Your task to perform on an android device: Look up the best rated book on Goodreads Image 0: 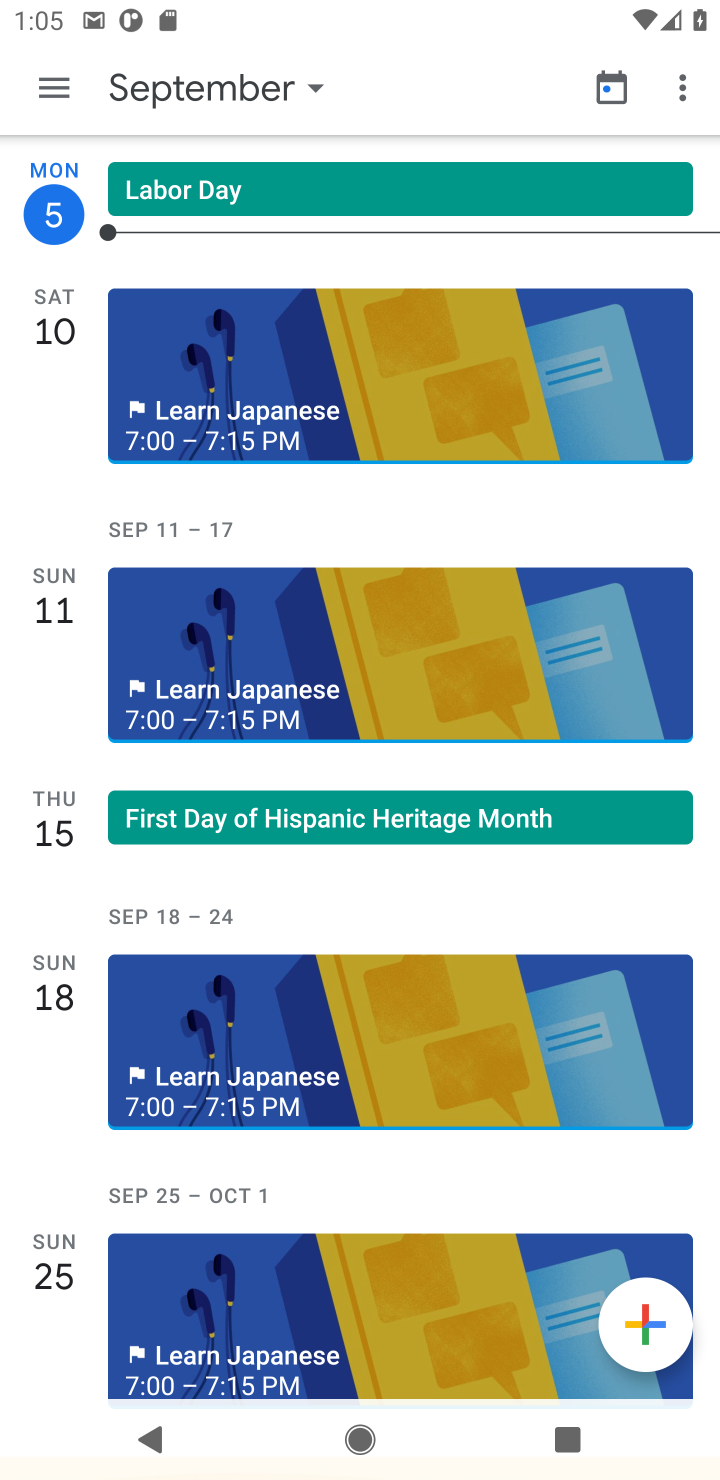
Step 0: click (159, 885)
Your task to perform on an android device: Look up the best rated book on Goodreads Image 1: 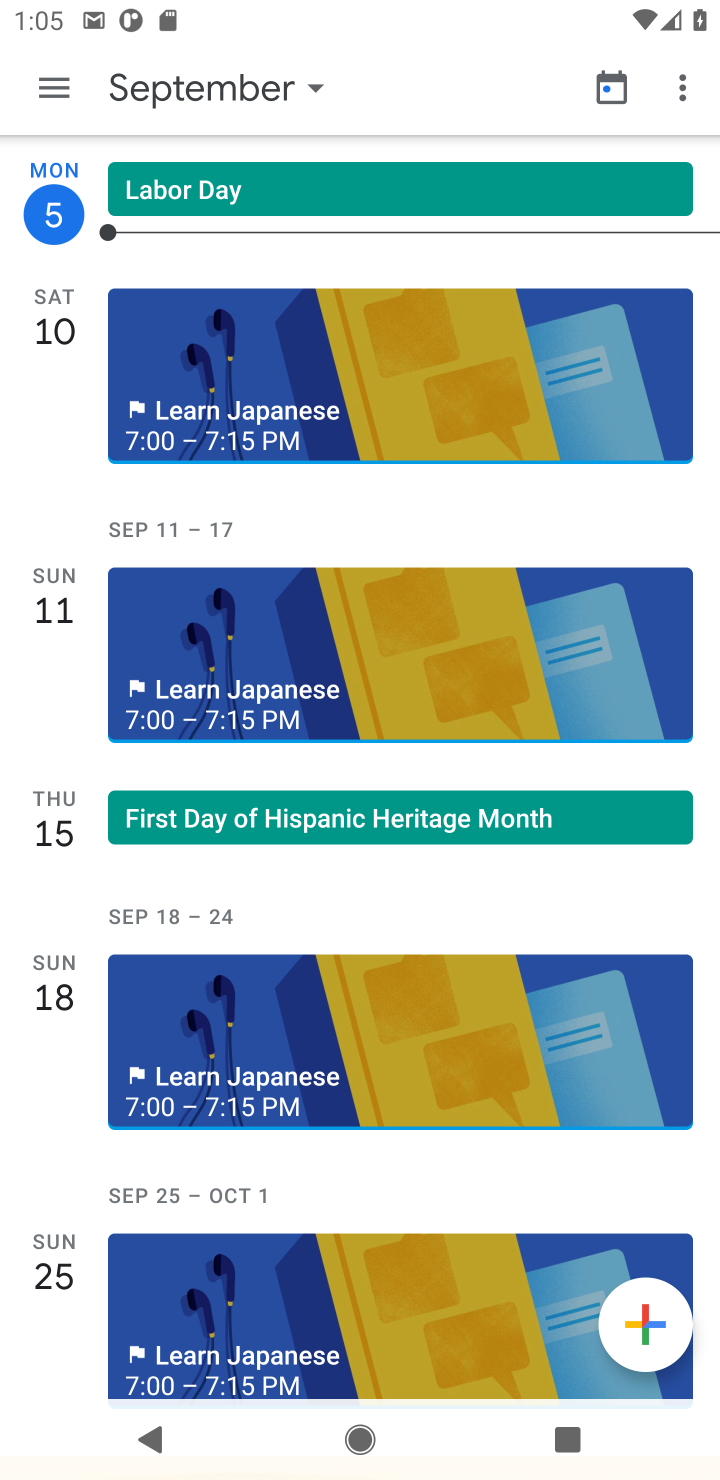
Step 1: click (170, 1000)
Your task to perform on an android device: Look up the best rated book on Goodreads Image 2: 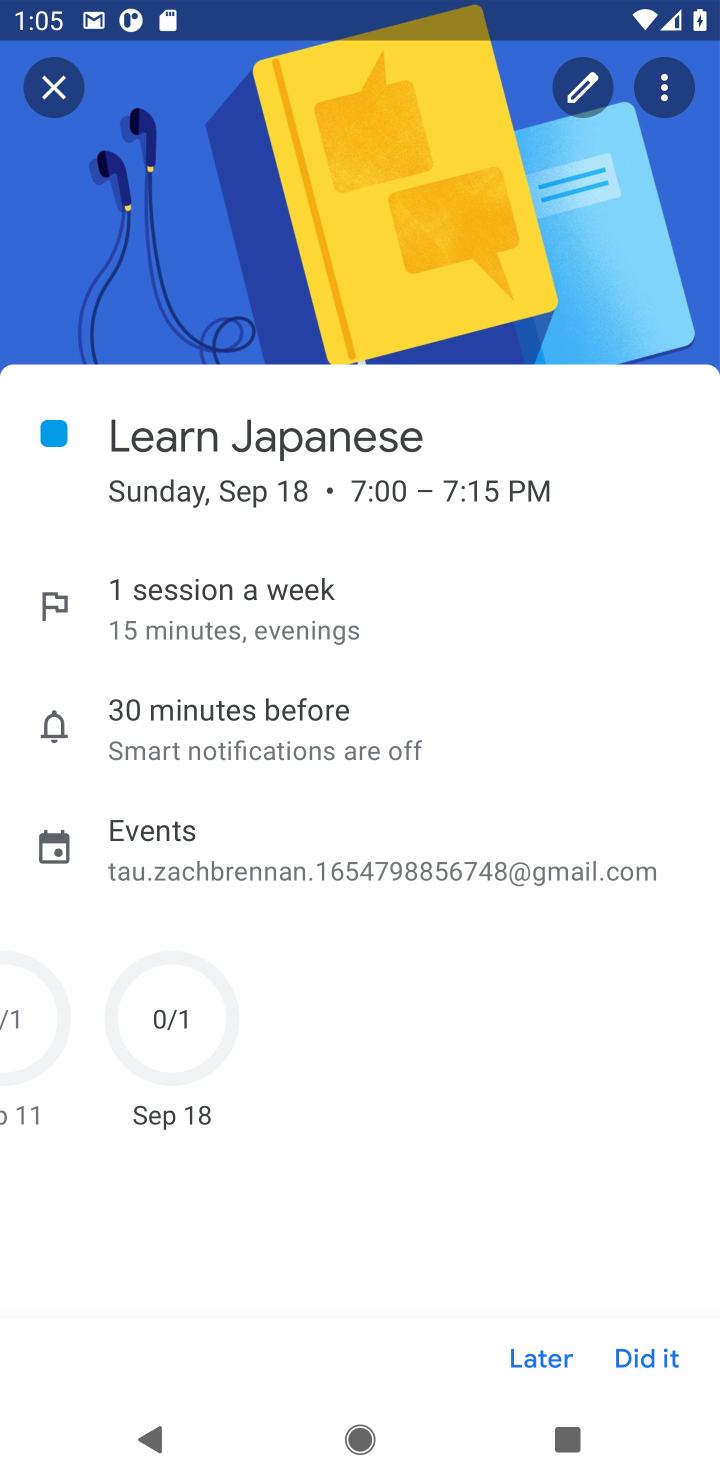
Step 2: click (614, 1360)
Your task to perform on an android device: Look up the best rated book on Goodreads Image 3: 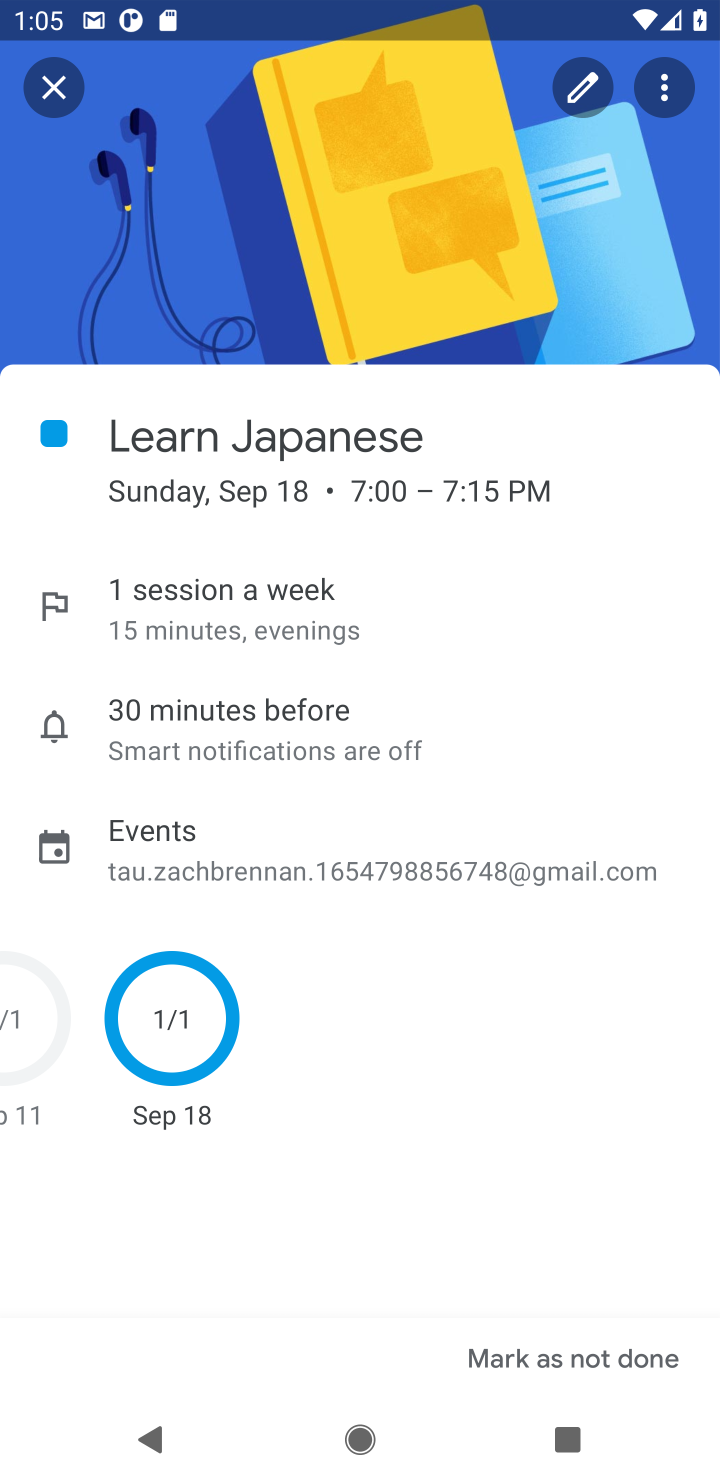
Step 3: task complete